Your task to perform on an android device: turn off smart reply in the gmail app Image 0: 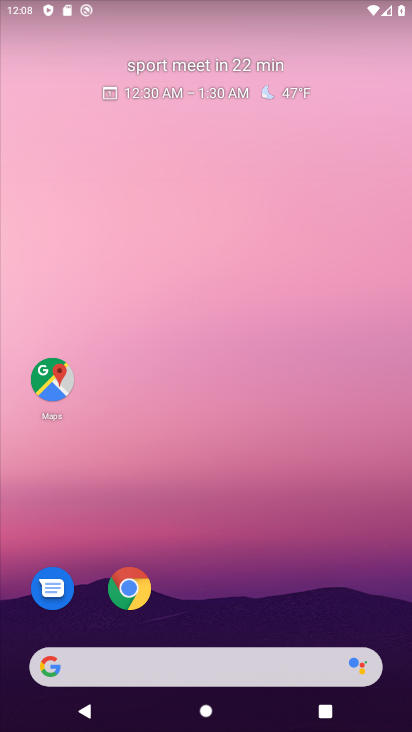
Step 0: drag from (274, 523) to (311, 14)
Your task to perform on an android device: turn off smart reply in the gmail app Image 1: 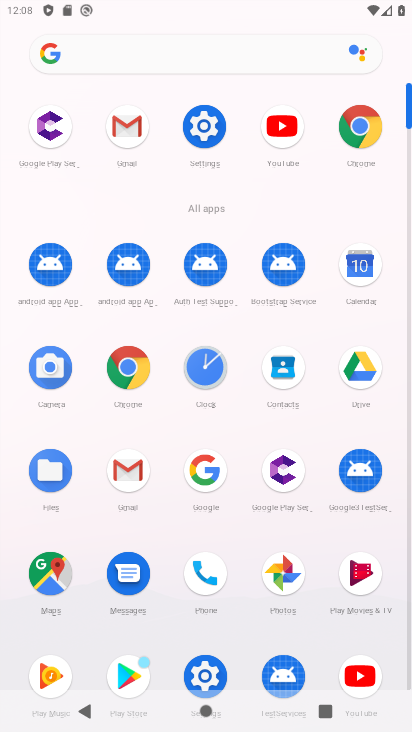
Step 1: click (124, 119)
Your task to perform on an android device: turn off smart reply in the gmail app Image 2: 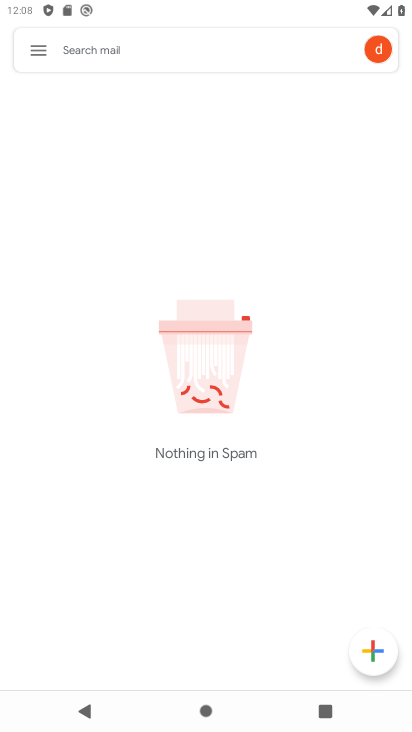
Step 2: click (41, 47)
Your task to perform on an android device: turn off smart reply in the gmail app Image 3: 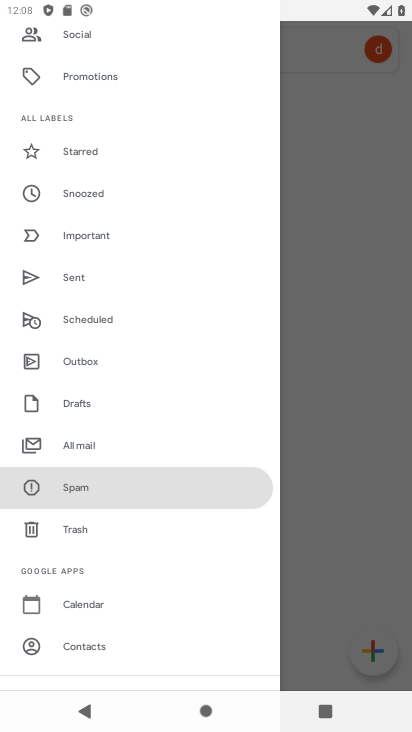
Step 3: drag from (126, 553) to (131, 333)
Your task to perform on an android device: turn off smart reply in the gmail app Image 4: 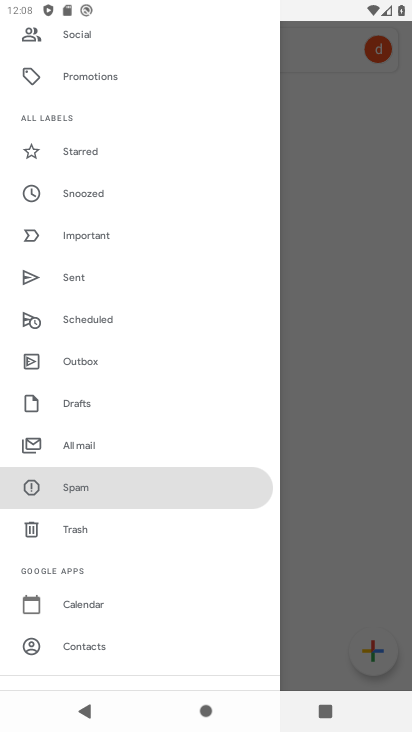
Step 4: drag from (145, 603) to (171, 405)
Your task to perform on an android device: turn off smart reply in the gmail app Image 5: 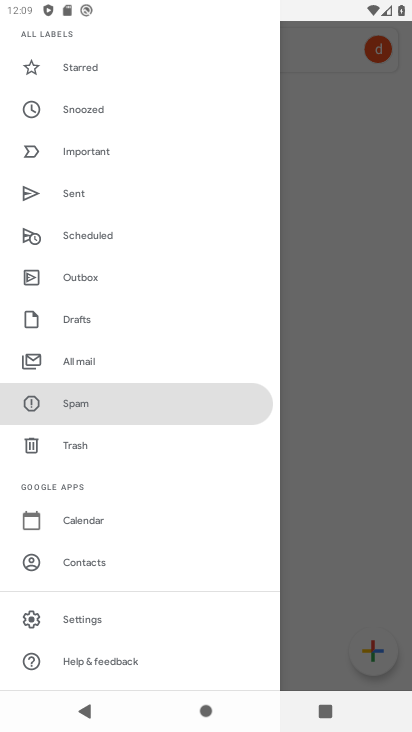
Step 5: click (106, 617)
Your task to perform on an android device: turn off smart reply in the gmail app Image 6: 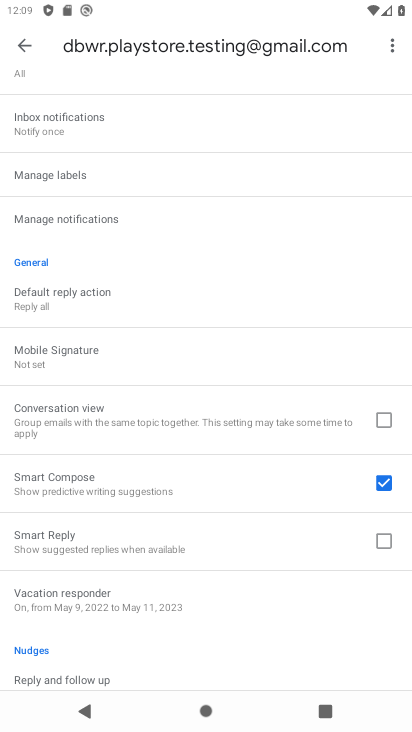
Step 6: task complete